Your task to perform on an android device: turn off location history Image 0: 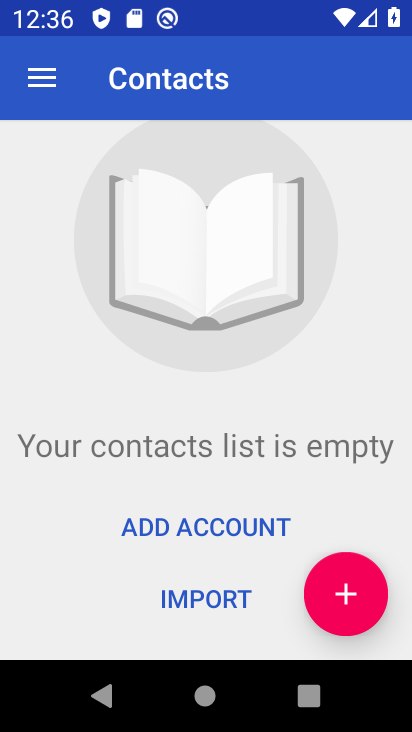
Step 0: press home button
Your task to perform on an android device: turn off location history Image 1: 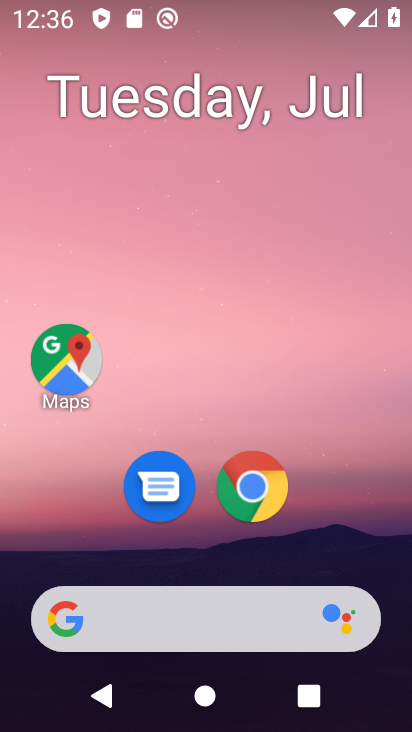
Step 1: drag from (357, 542) to (380, 89)
Your task to perform on an android device: turn off location history Image 2: 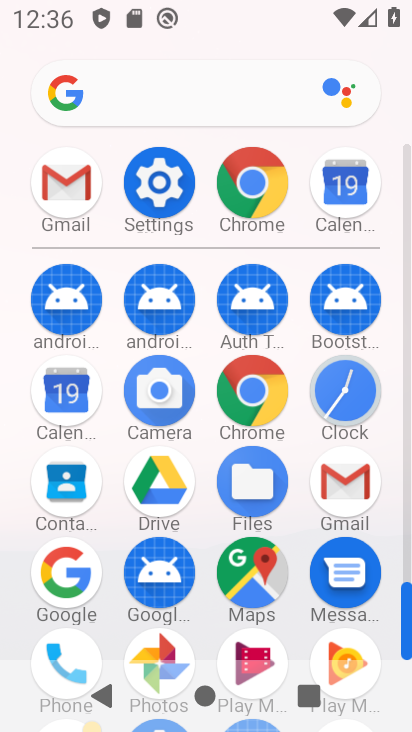
Step 2: click (166, 187)
Your task to perform on an android device: turn off location history Image 3: 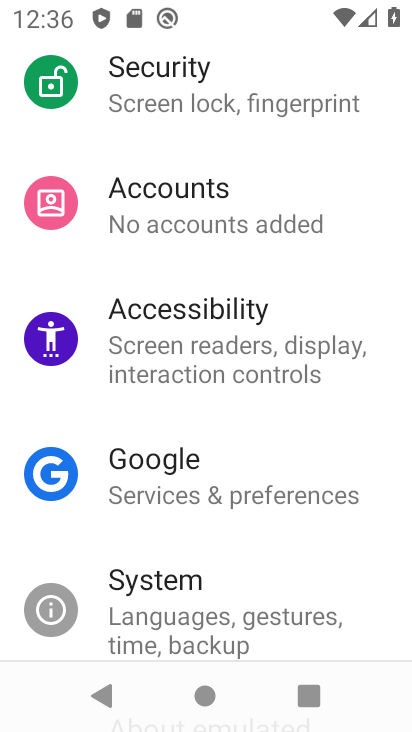
Step 3: drag from (367, 204) to (367, 316)
Your task to perform on an android device: turn off location history Image 4: 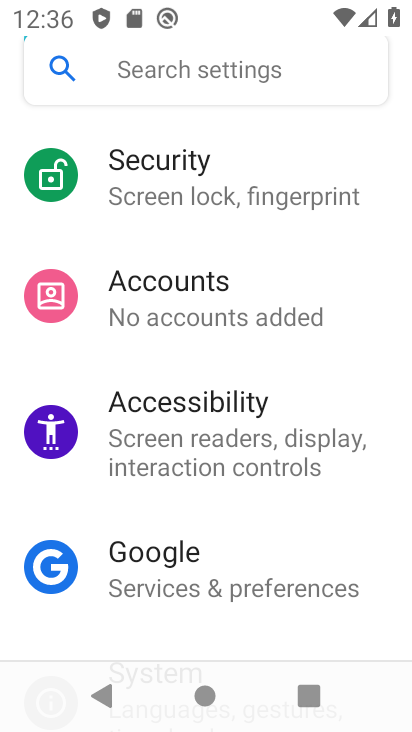
Step 4: drag from (377, 161) to (362, 334)
Your task to perform on an android device: turn off location history Image 5: 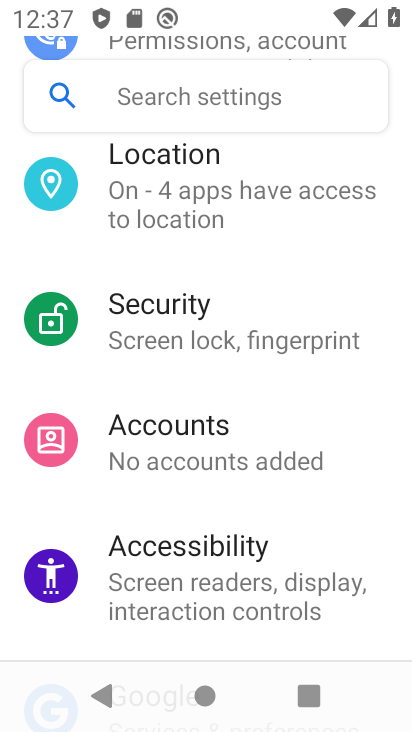
Step 5: drag from (380, 255) to (379, 387)
Your task to perform on an android device: turn off location history Image 6: 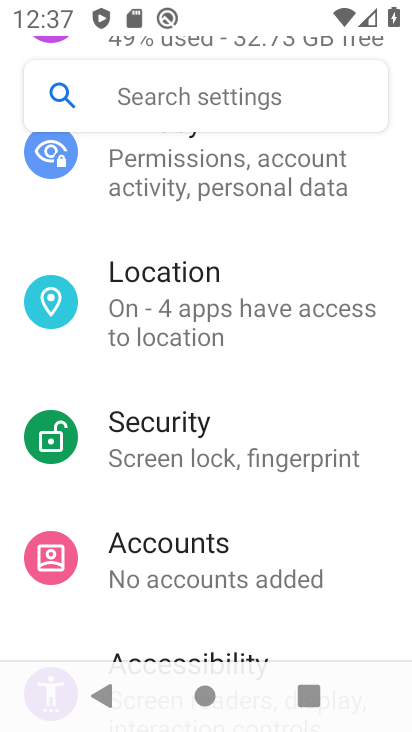
Step 6: drag from (386, 197) to (388, 374)
Your task to perform on an android device: turn off location history Image 7: 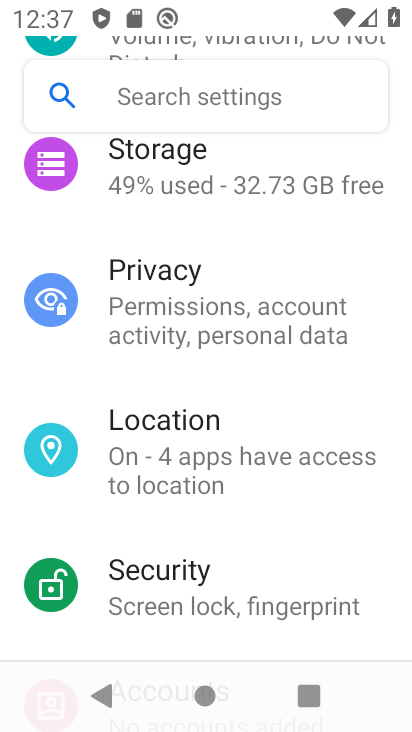
Step 7: drag from (392, 262) to (381, 403)
Your task to perform on an android device: turn off location history Image 8: 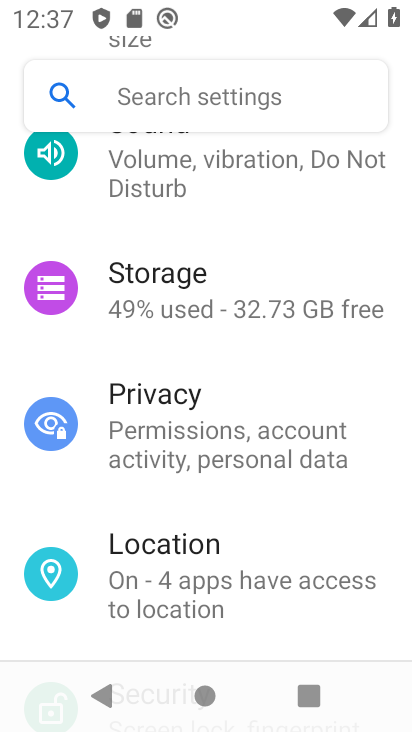
Step 8: drag from (374, 241) to (368, 396)
Your task to perform on an android device: turn off location history Image 9: 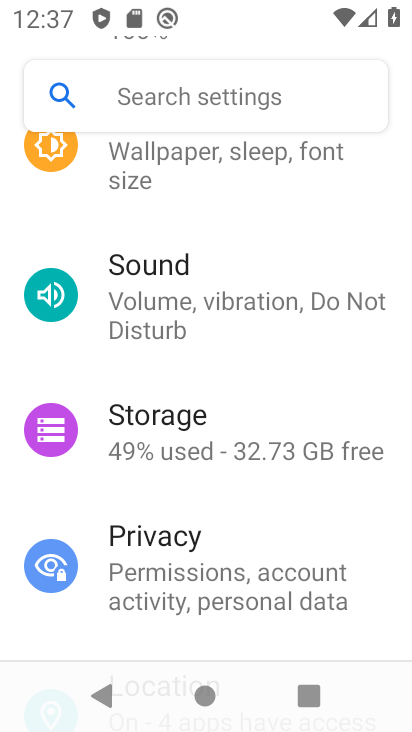
Step 9: drag from (381, 221) to (373, 457)
Your task to perform on an android device: turn off location history Image 10: 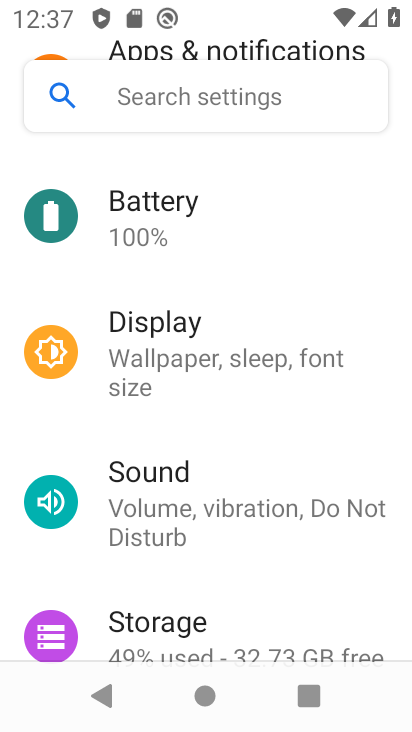
Step 10: drag from (349, 188) to (368, 441)
Your task to perform on an android device: turn off location history Image 11: 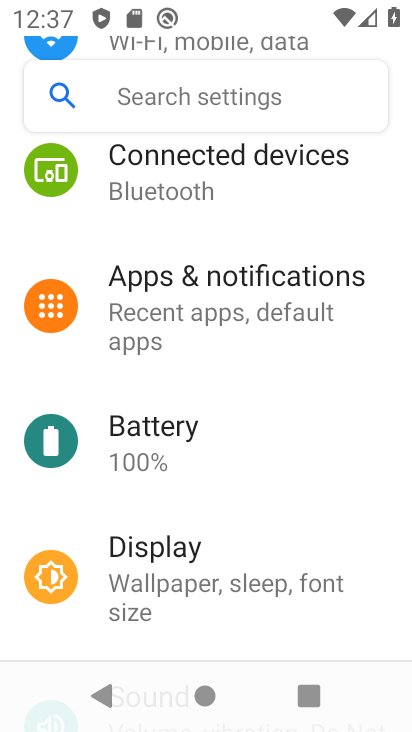
Step 11: drag from (350, 468) to (367, 276)
Your task to perform on an android device: turn off location history Image 12: 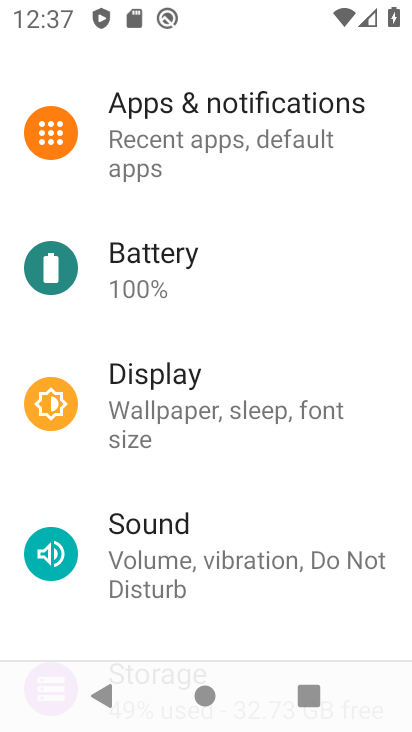
Step 12: drag from (355, 516) to (348, 324)
Your task to perform on an android device: turn off location history Image 13: 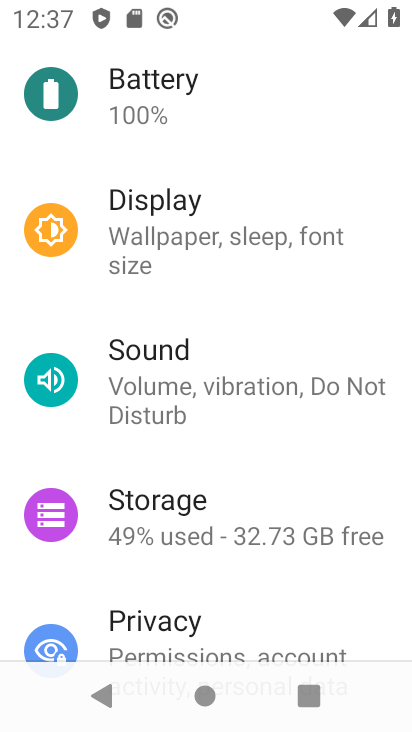
Step 13: drag from (343, 592) to (356, 338)
Your task to perform on an android device: turn off location history Image 14: 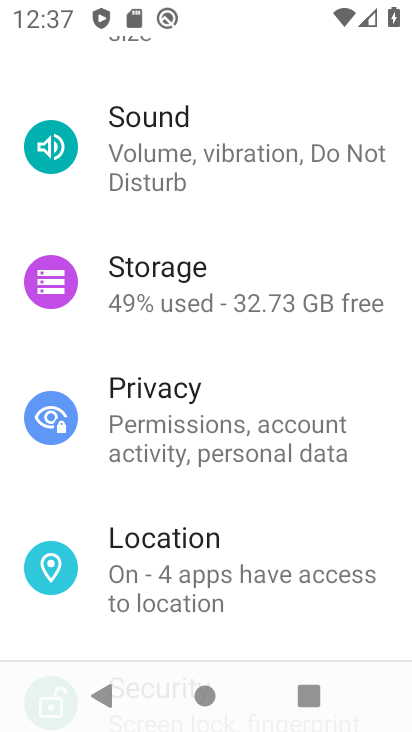
Step 14: drag from (344, 616) to (344, 414)
Your task to perform on an android device: turn off location history Image 15: 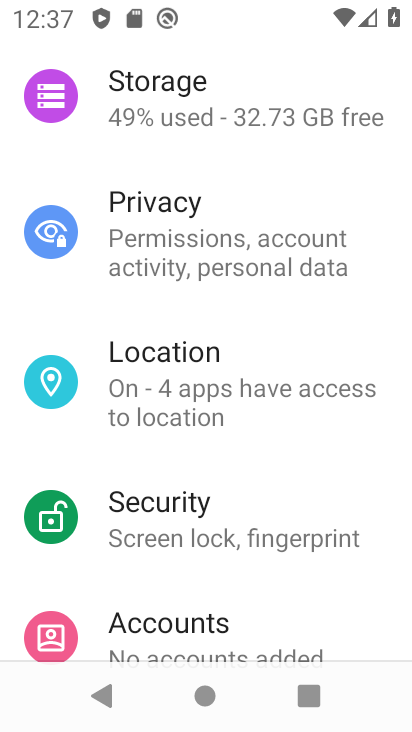
Step 15: click (259, 383)
Your task to perform on an android device: turn off location history Image 16: 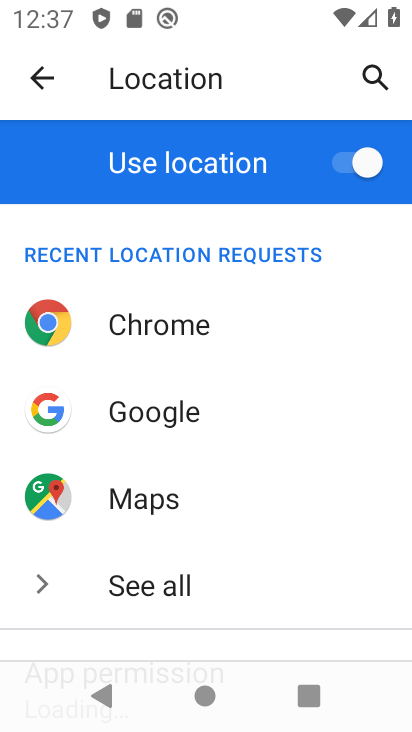
Step 16: drag from (308, 531) to (300, 374)
Your task to perform on an android device: turn off location history Image 17: 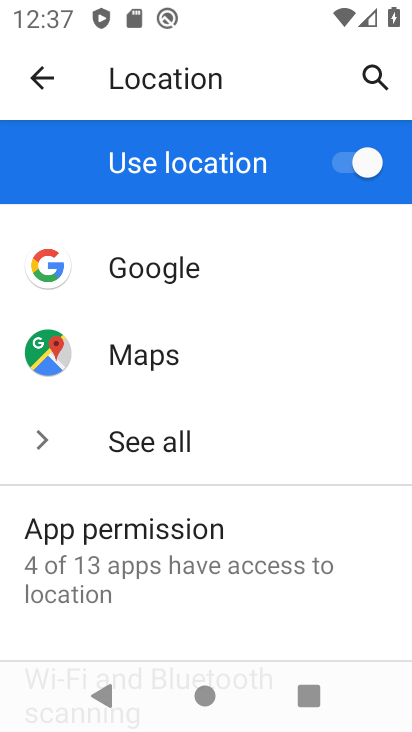
Step 17: drag from (306, 530) to (309, 326)
Your task to perform on an android device: turn off location history Image 18: 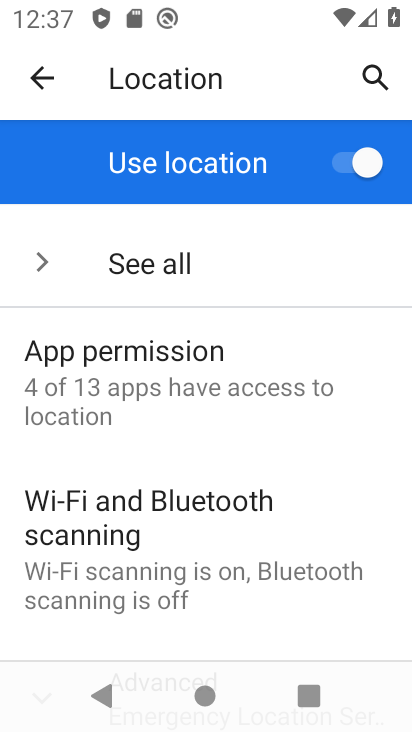
Step 18: drag from (316, 625) to (320, 427)
Your task to perform on an android device: turn off location history Image 19: 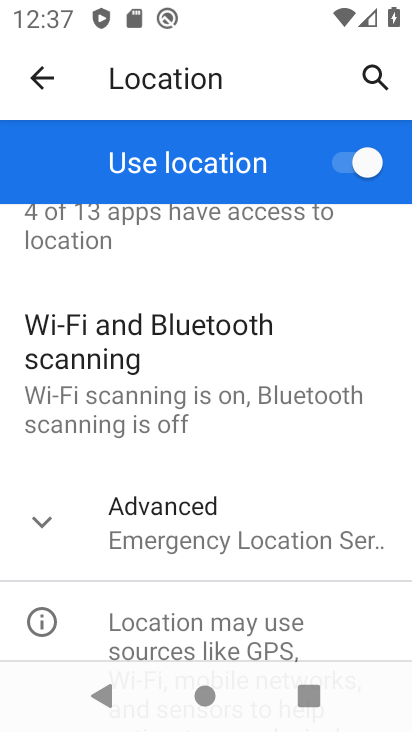
Step 19: click (324, 605)
Your task to perform on an android device: turn off location history Image 20: 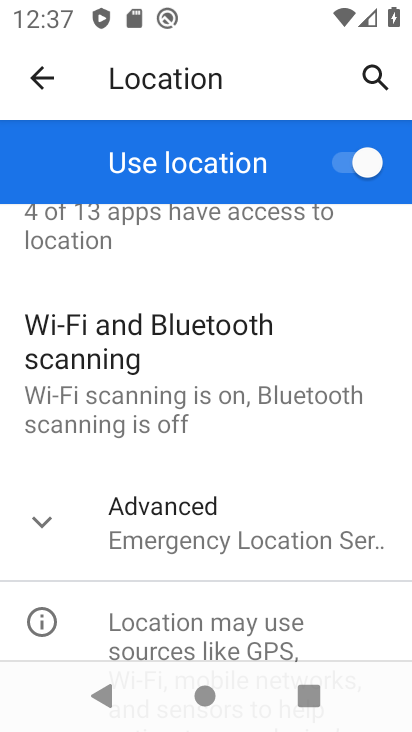
Step 20: click (311, 538)
Your task to perform on an android device: turn off location history Image 21: 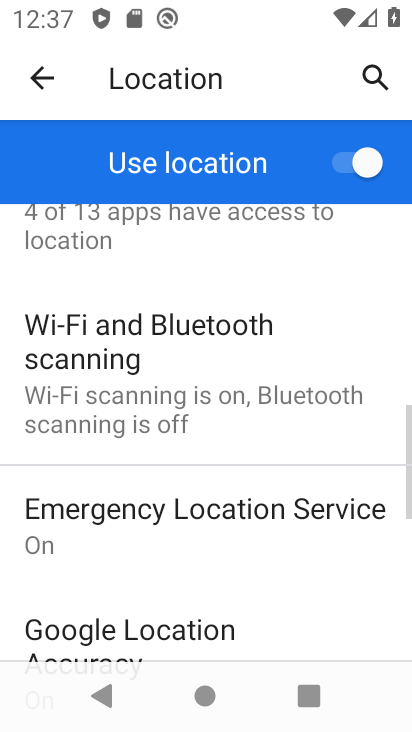
Step 21: drag from (314, 605) to (320, 407)
Your task to perform on an android device: turn off location history Image 22: 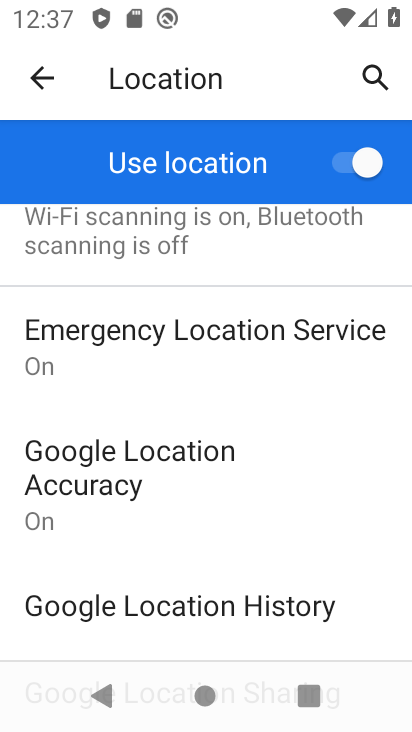
Step 22: drag from (301, 545) to (327, 338)
Your task to perform on an android device: turn off location history Image 23: 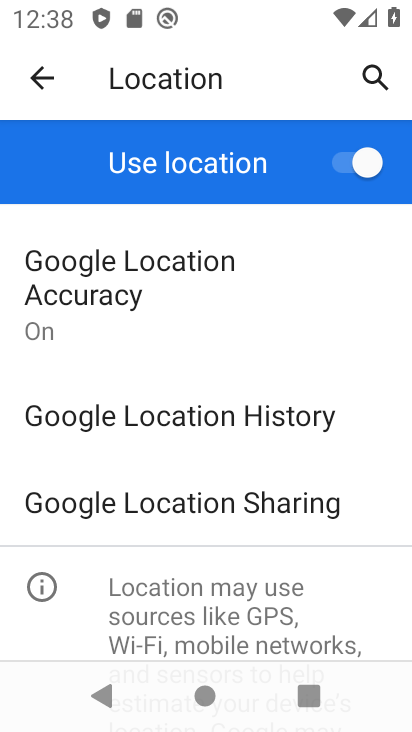
Step 23: click (292, 426)
Your task to perform on an android device: turn off location history Image 24: 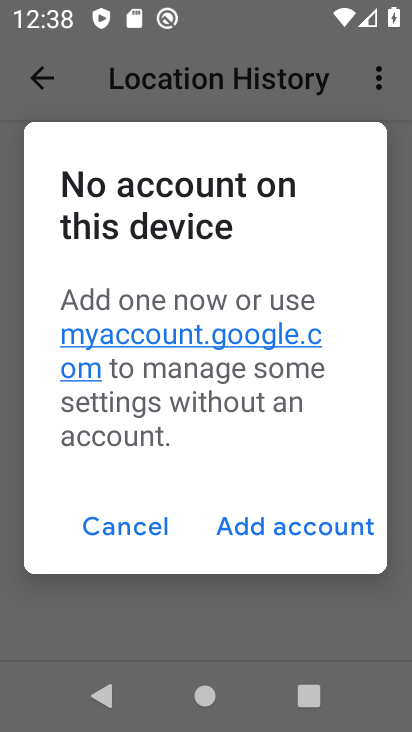
Step 24: click (159, 521)
Your task to perform on an android device: turn off location history Image 25: 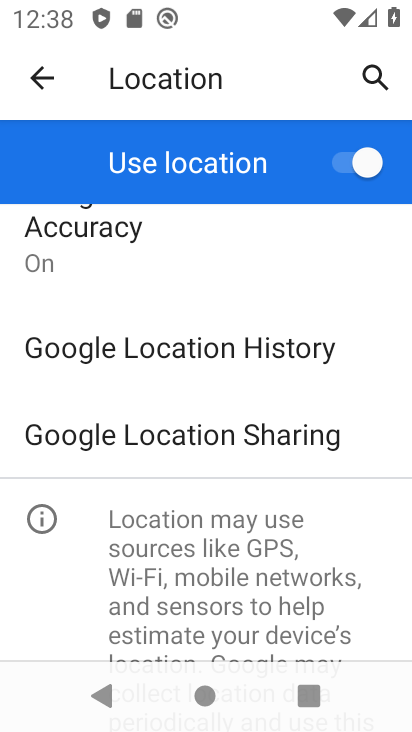
Step 25: task complete